Your task to perform on an android device: change keyboard looks Image 0: 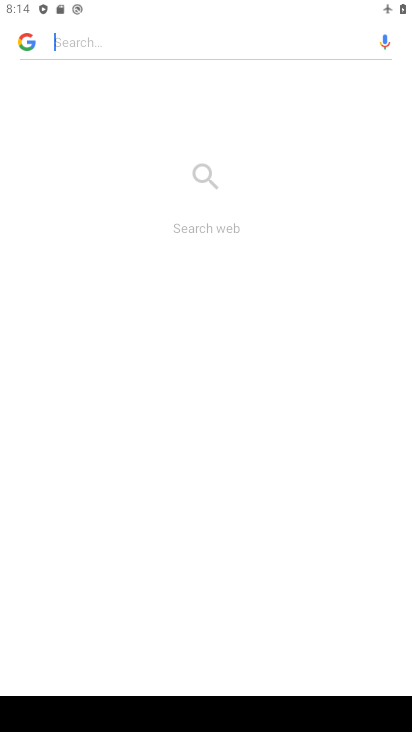
Step 0: press home button
Your task to perform on an android device: change keyboard looks Image 1: 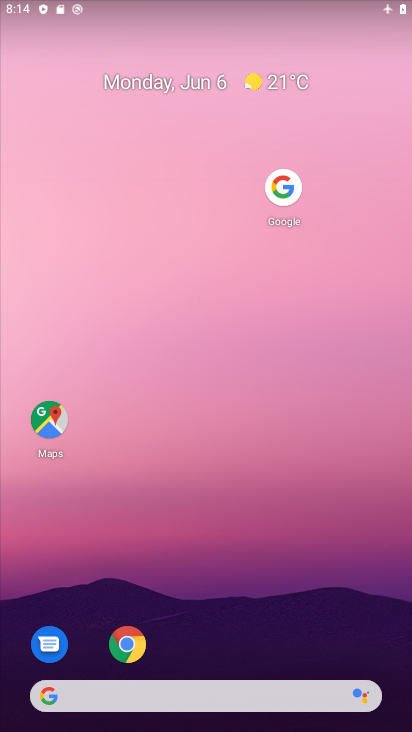
Step 1: drag from (205, 679) to (205, 126)
Your task to perform on an android device: change keyboard looks Image 2: 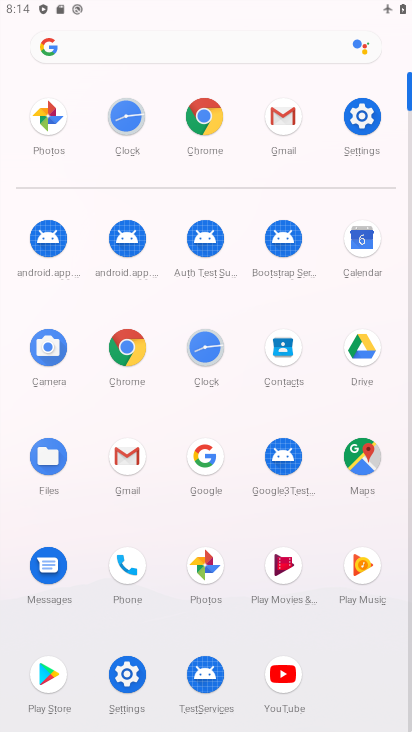
Step 2: click (362, 122)
Your task to perform on an android device: change keyboard looks Image 3: 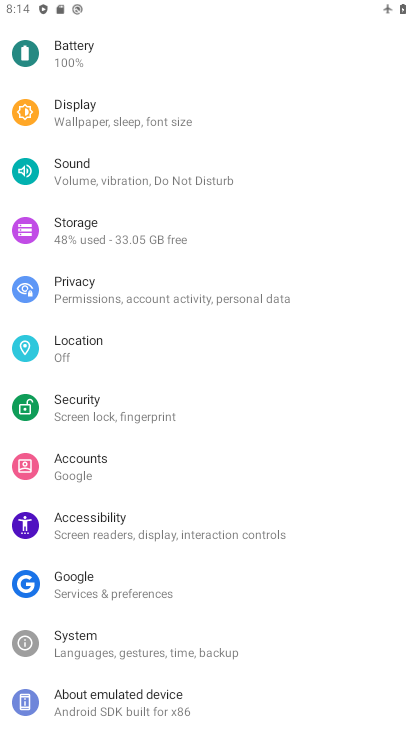
Step 3: click (92, 636)
Your task to perform on an android device: change keyboard looks Image 4: 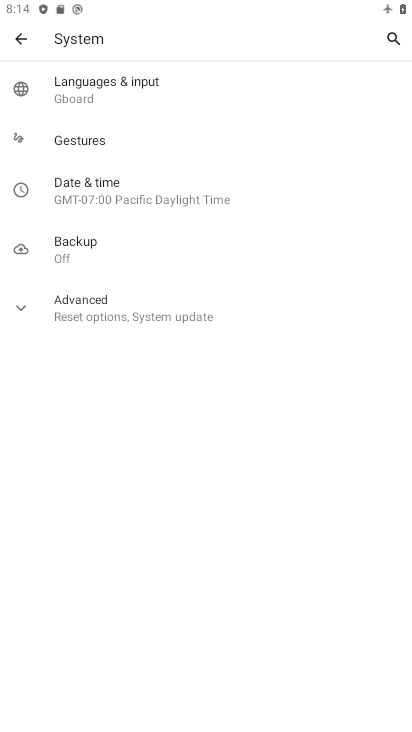
Step 4: click (139, 96)
Your task to perform on an android device: change keyboard looks Image 5: 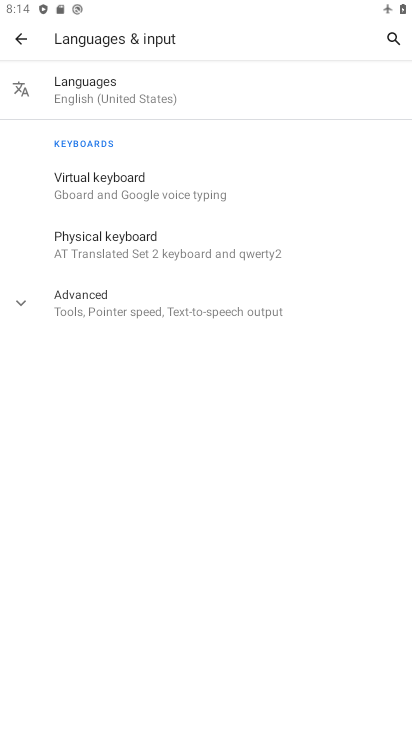
Step 5: click (136, 178)
Your task to perform on an android device: change keyboard looks Image 6: 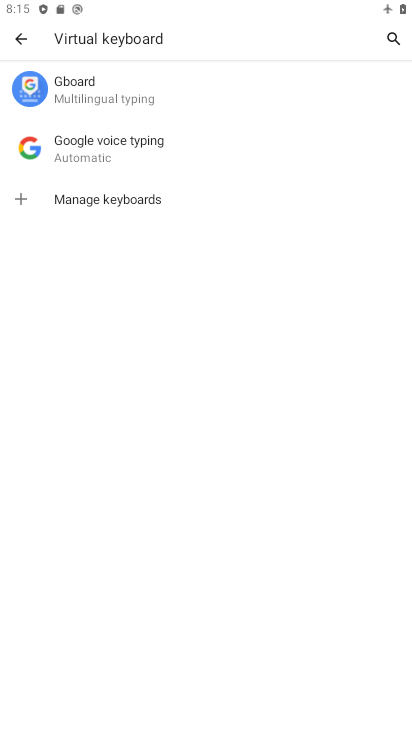
Step 6: click (166, 105)
Your task to perform on an android device: change keyboard looks Image 7: 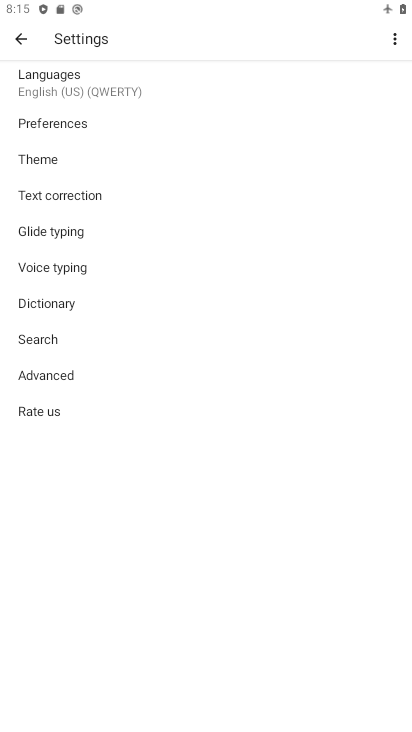
Step 7: click (63, 156)
Your task to perform on an android device: change keyboard looks Image 8: 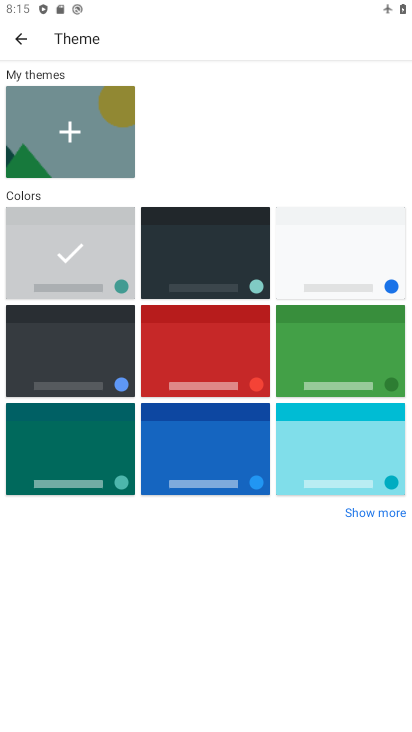
Step 8: click (196, 309)
Your task to perform on an android device: change keyboard looks Image 9: 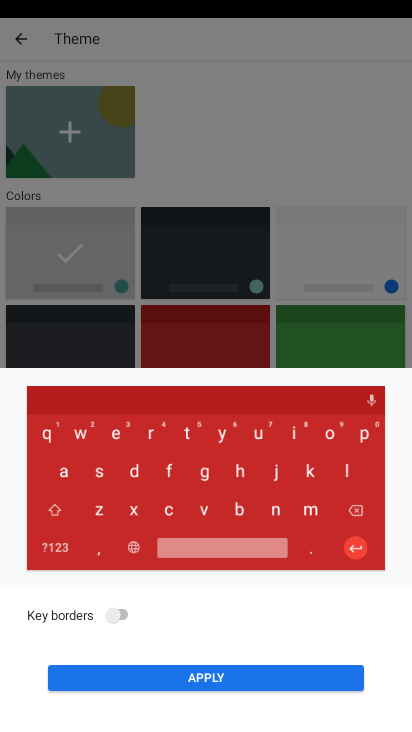
Step 9: click (197, 665)
Your task to perform on an android device: change keyboard looks Image 10: 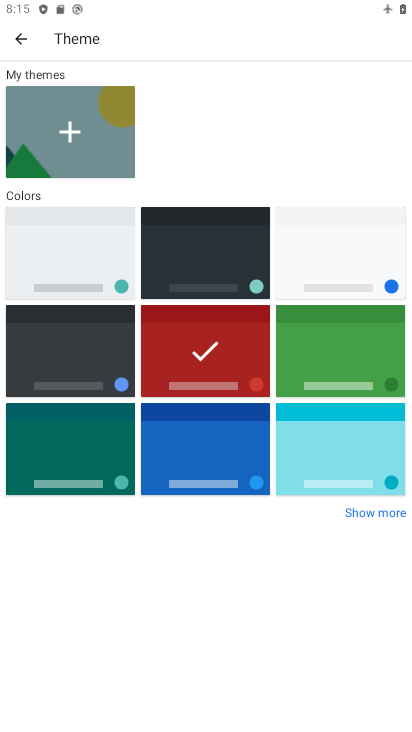
Step 10: task complete